Your task to perform on an android device: toggle wifi Image 0: 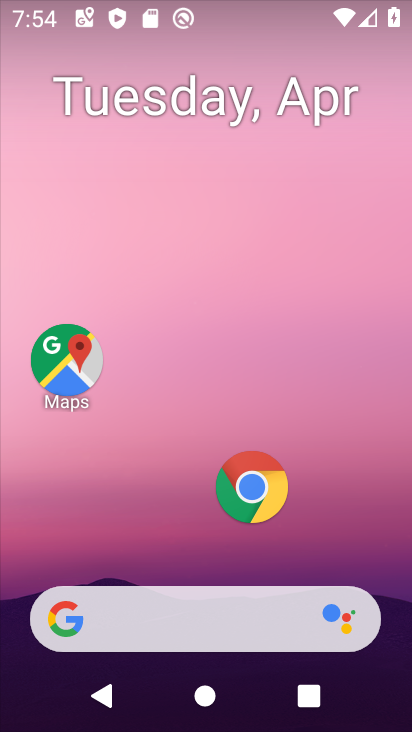
Step 0: drag from (247, 698) to (157, 4)
Your task to perform on an android device: toggle wifi Image 1: 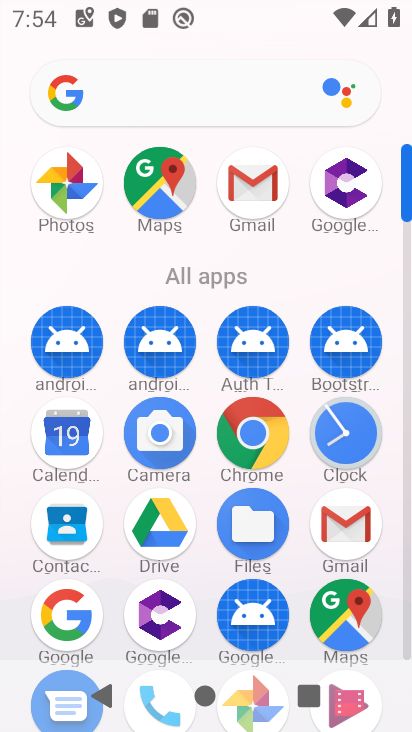
Step 1: drag from (181, 628) to (116, 7)
Your task to perform on an android device: toggle wifi Image 2: 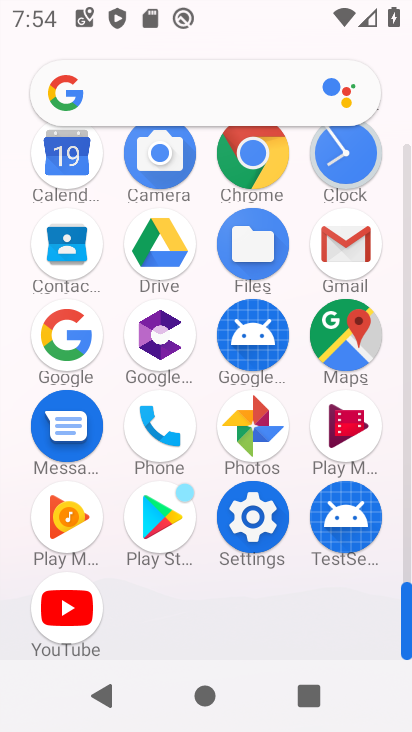
Step 2: click (218, 515)
Your task to perform on an android device: toggle wifi Image 3: 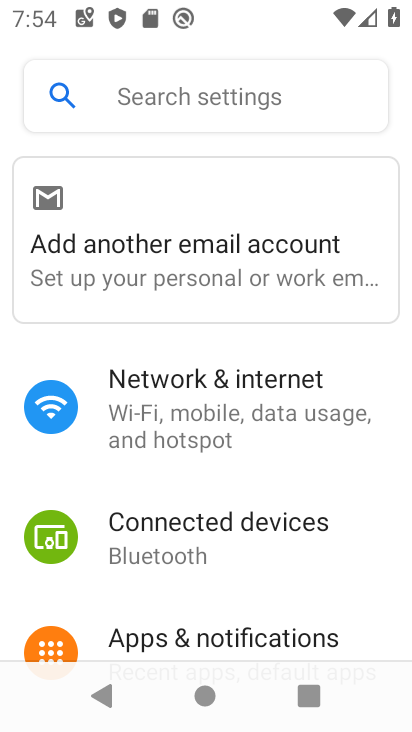
Step 3: click (213, 433)
Your task to perform on an android device: toggle wifi Image 4: 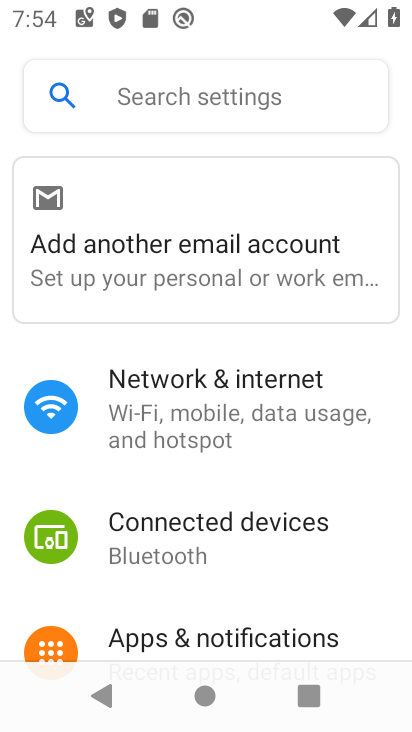
Step 4: click (213, 433)
Your task to perform on an android device: toggle wifi Image 5: 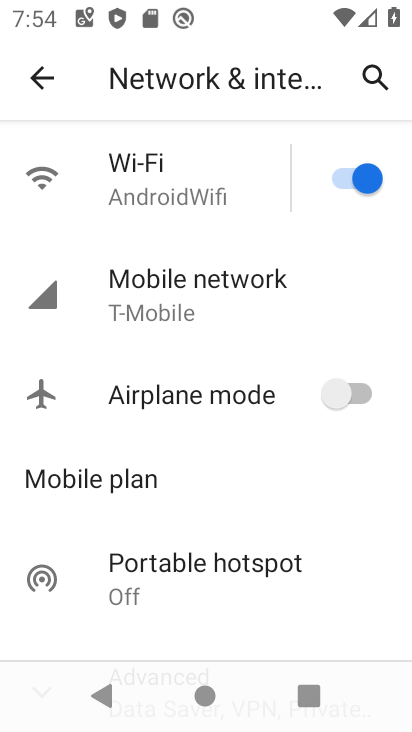
Step 5: click (352, 153)
Your task to perform on an android device: toggle wifi Image 6: 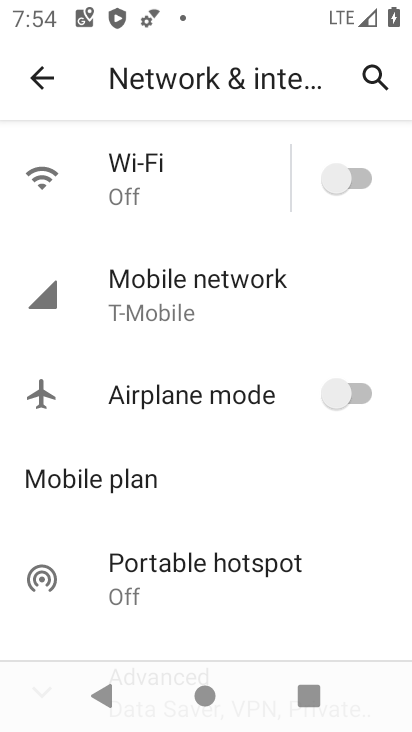
Step 6: task complete